Your task to perform on an android device: Find coffee shops on Maps Image 0: 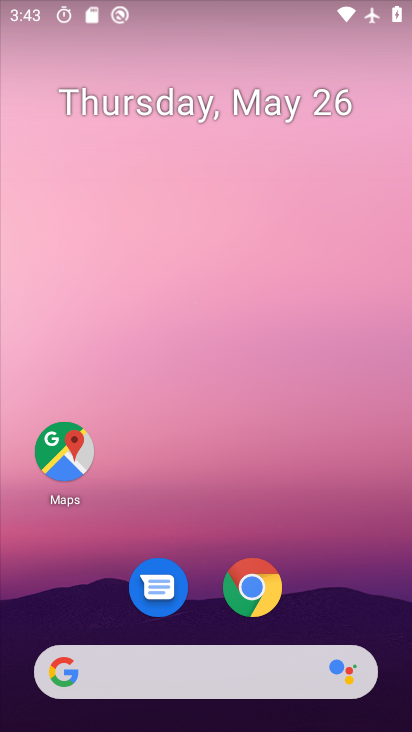
Step 0: drag from (251, 636) to (193, 257)
Your task to perform on an android device: Find coffee shops on Maps Image 1: 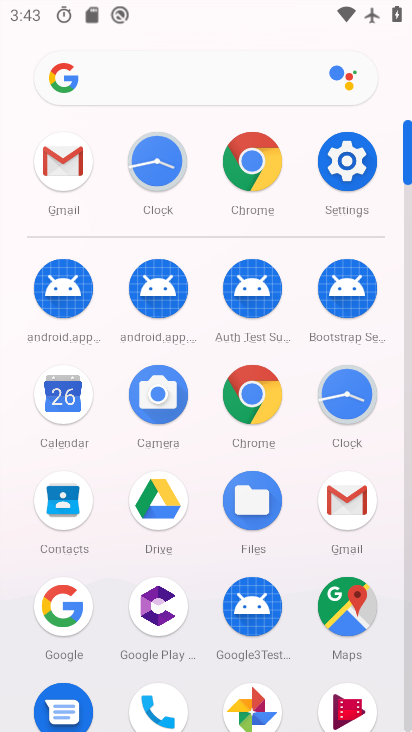
Step 1: click (358, 602)
Your task to perform on an android device: Find coffee shops on Maps Image 2: 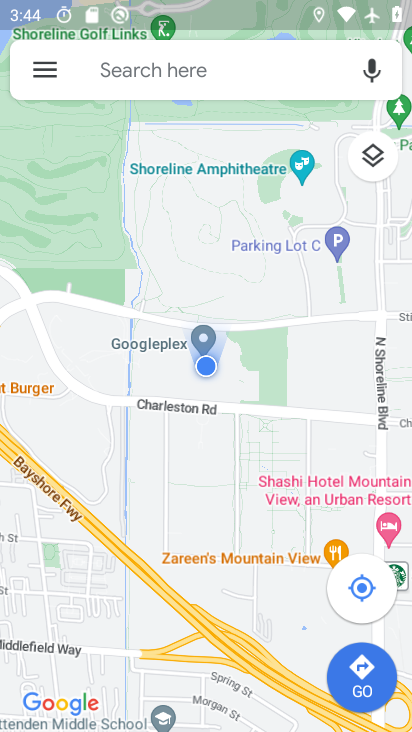
Step 2: click (94, 62)
Your task to perform on an android device: Find coffee shops on Maps Image 3: 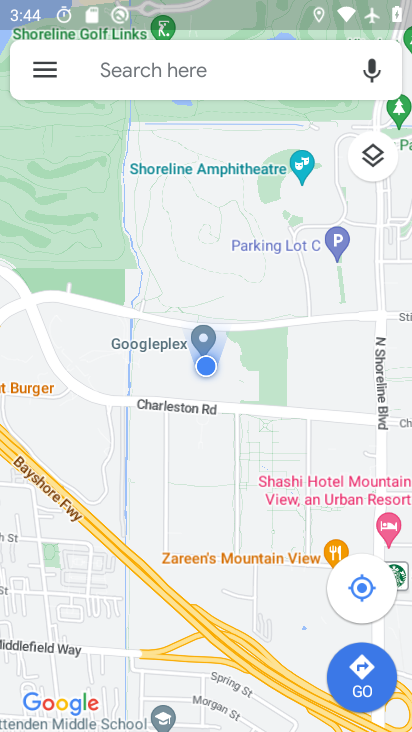
Step 3: click (102, 61)
Your task to perform on an android device: Find coffee shops on Maps Image 4: 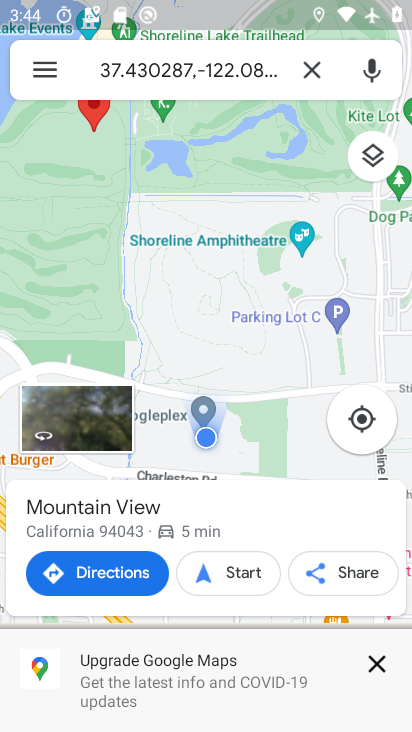
Step 4: click (312, 68)
Your task to perform on an android device: Find coffee shops on Maps Image 5: 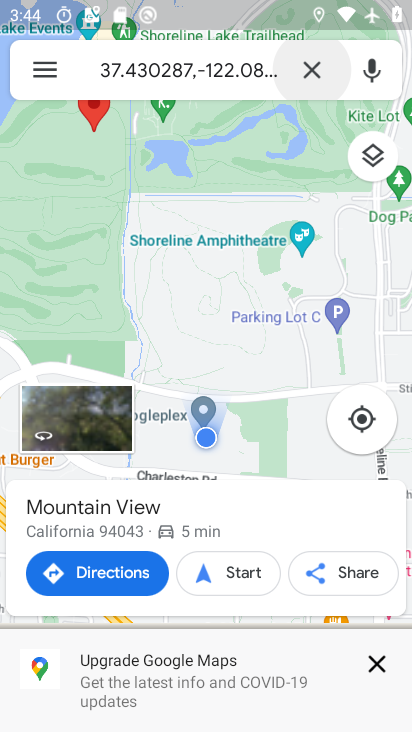
Step 5: click (312, 68)
Your task to perform on an android device: Find coffee shops on Maps Image 6: 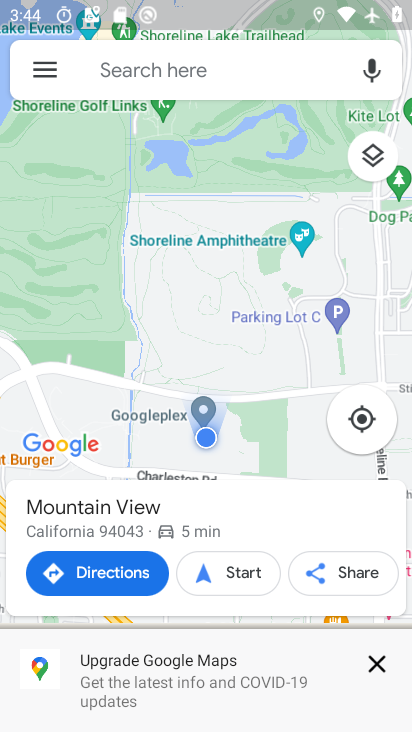
Step 6: click (313, 67)
Your task to perform on an android device: Find coffee shops on Maps Image 7: 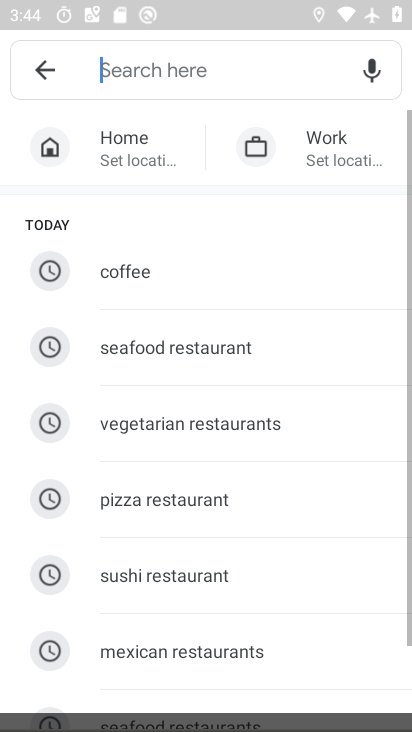
Step 7: click (106, 61)
Your task to perform on an android device: Find coffee shops on Maps Image 8: 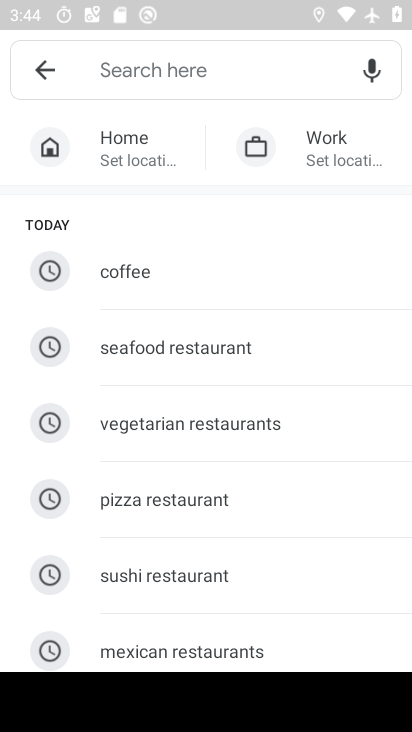
Step 8: click (111, 265)
Your task to perform on an android device: Find coffee shops on Maps Image 9: 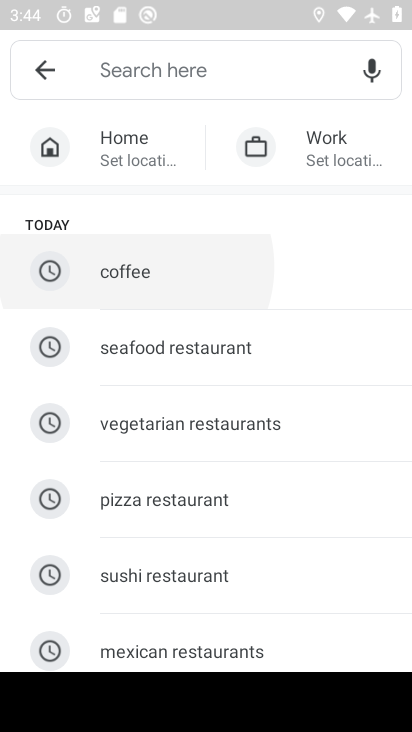
Step 9: click (111, 265)
Your task to perform on an android device: Find coffee shops on Maps Image 10: 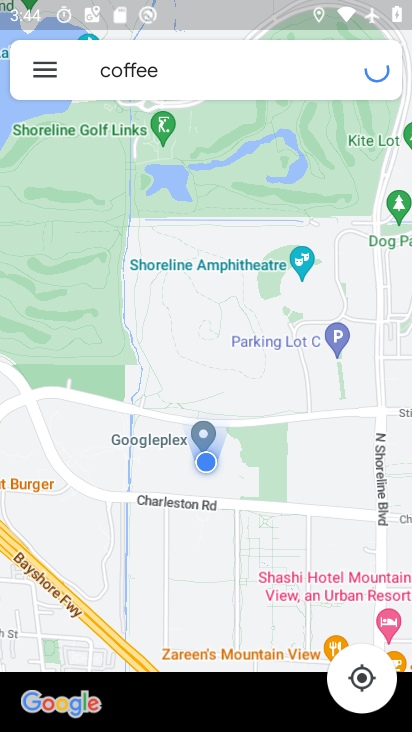
Step 10: click (112, 264)
Your task to perform on an android device: Find coffee shops on Maps Image 11: 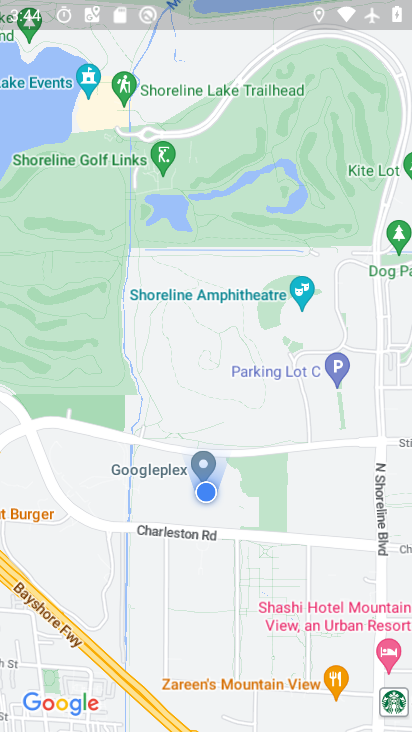
Step 11: task complete